Your task to perform on an android device: Open Amazon Image 0: 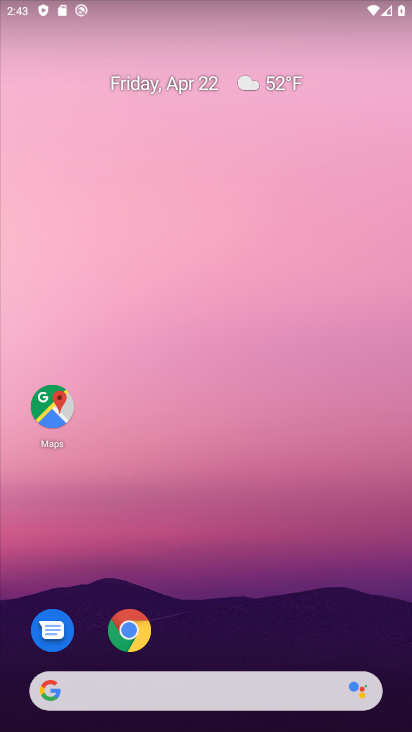
Step 0: click (130, 631)
Your task to perform on an android device: Open Amazon Image 1: 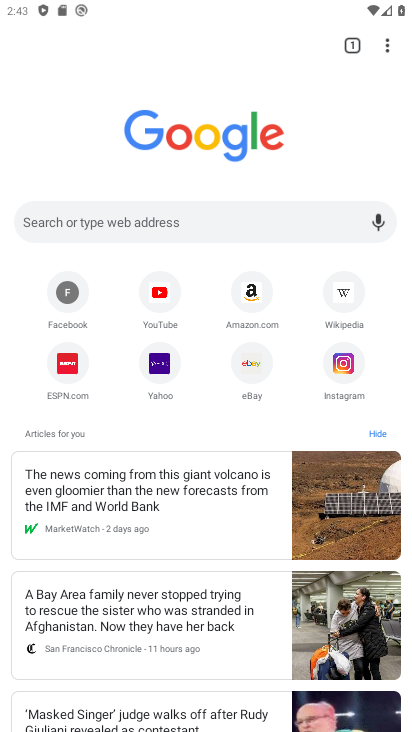
Step 1: click (244, 289)
Your task to perform on an android device: Open Amazon Image 2: 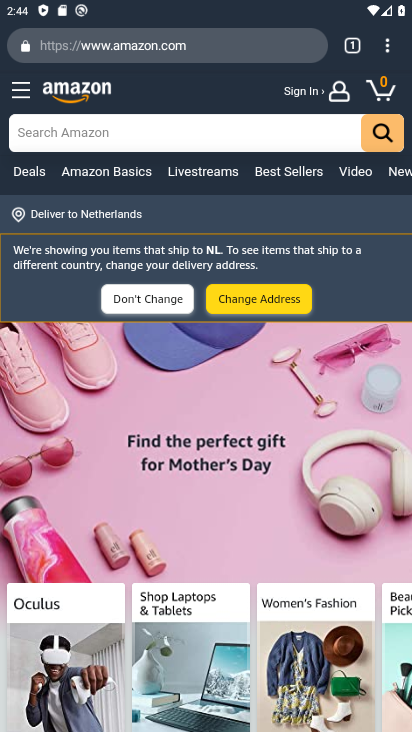
Step 2: task complete